Your task to perform on an android device: open a new tab in the chrome app Image 0: 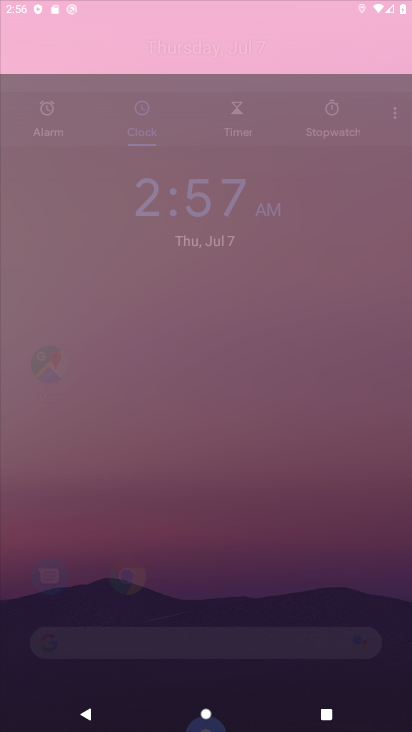
Step 0: press home button
Your task to perform on an android device: open a new tab in the chrome app Image 1: 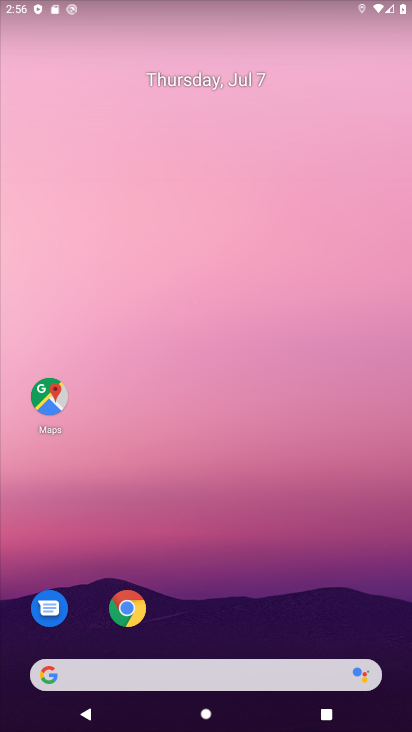
Step 1: click (125, 603)
Your task to perform on an android device: open a new tab in the chrome app Image 2: 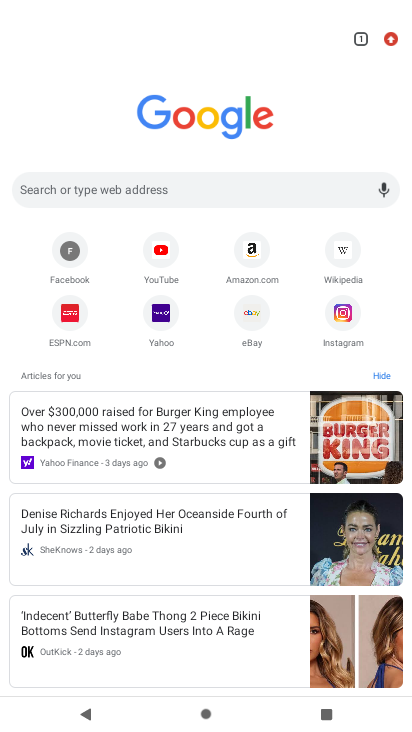
Step 2: click (394, 40)
Your task to perform on an android device: open a new tab in the chrome app Image 3: 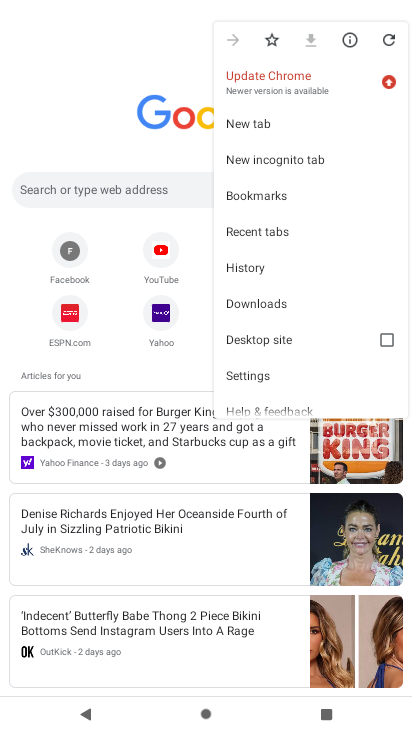
Step 3: click (276, 118)
Your task to perform on an android device: open a new tab in the chrome app Image 4: 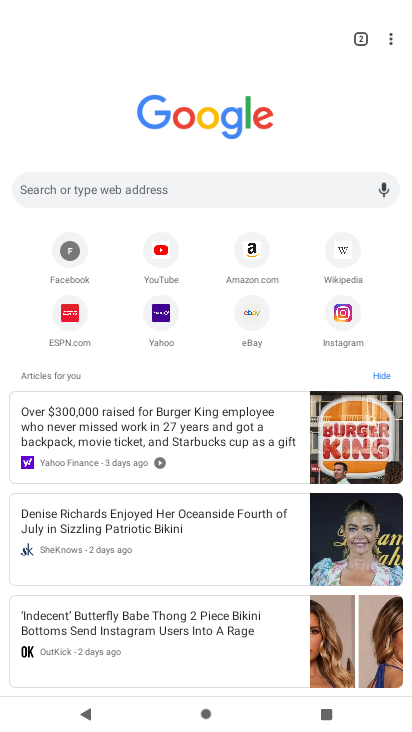
Step 4: task complete